Your task to perform on an android device: Search for Mexican restaurants on Maps Image 0: 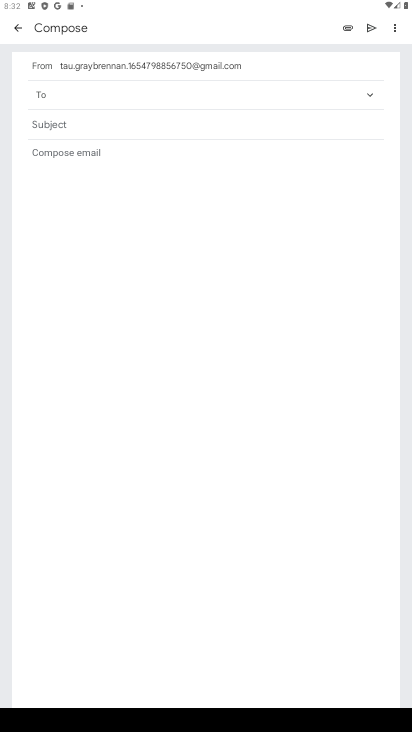
Step 0: press home button
Your task to perform on an android device: Search for Mexican restaurants on Maps Image 1: 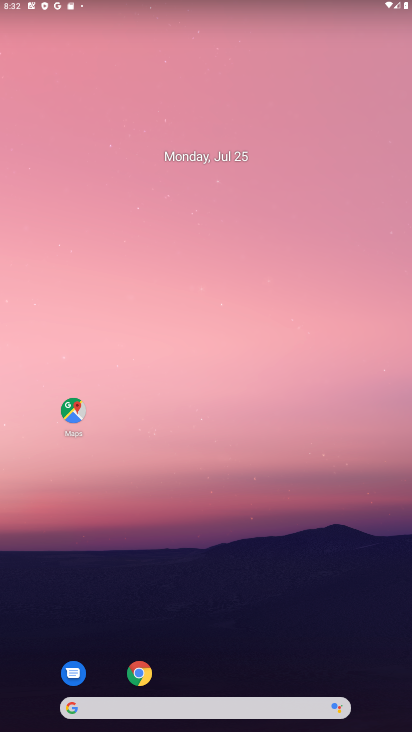
Step 1: click (84, 394)
Your task to perform on an android device: Search for Mexican restaurants on Maps Image 2: 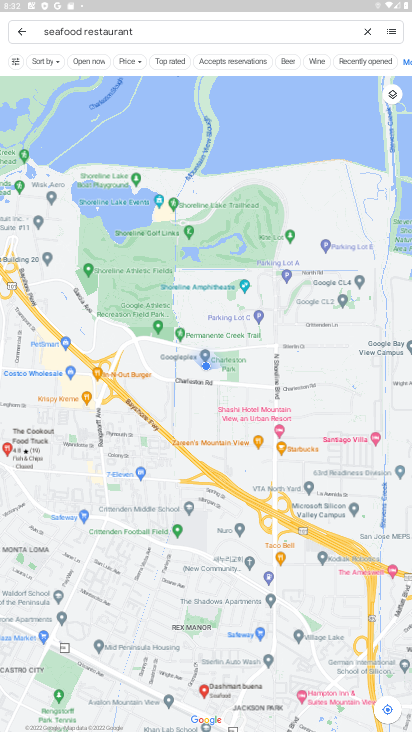
Step 2: click (223, 36)
Your task to perform on an android device: Search for Mexican restaurants on Maps Image 3: 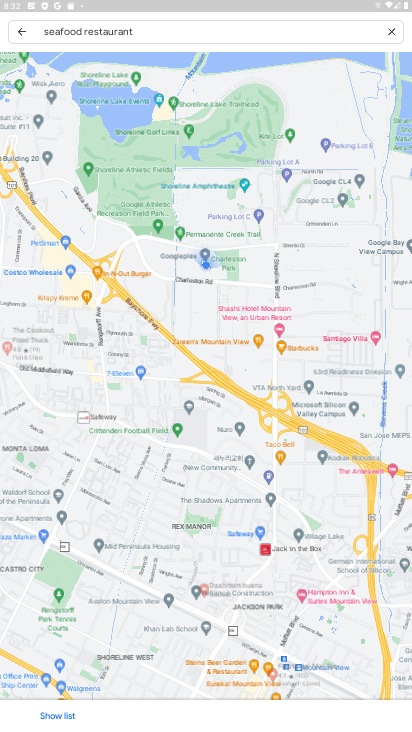
Step 3: click (367, 37)
Your task to perform on an android device: Search for Mexican restaurants on Maps Image 4: 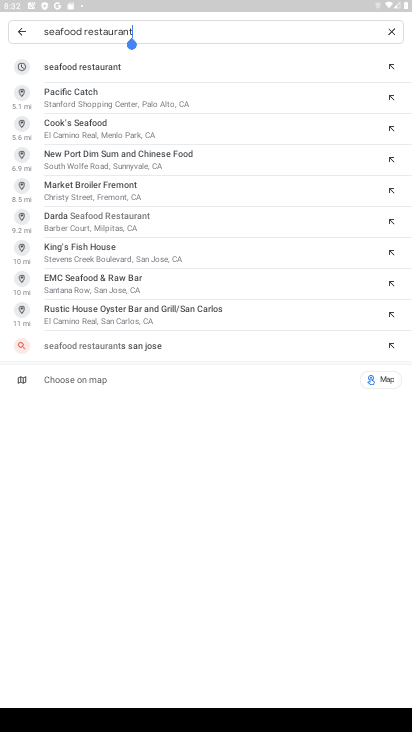
Step 4: click (397, 37)
Your task to perform on an android device: Search for Mexican restaurants on Maps Image 5: 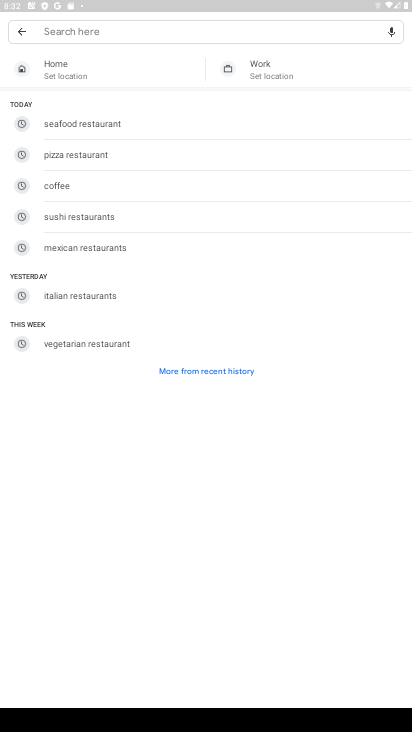
Step 5: click (103, 245)
Your task to perform on an android device: Search for Mexican restaurants on Maps Image 6: 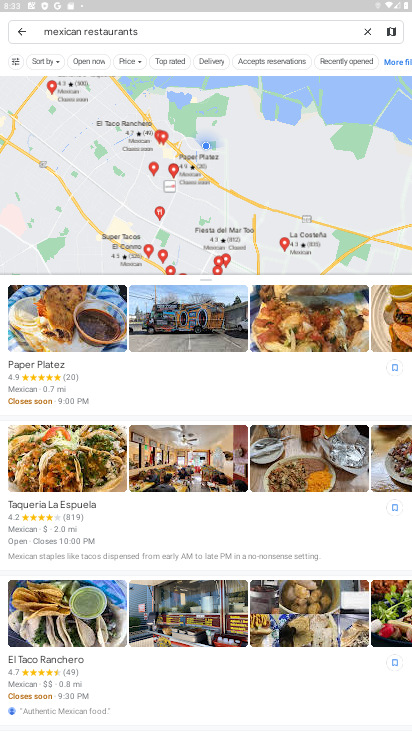
Step 6: task complete